Your task to perform on an android device: Search for "acer predator" on target.com, select the first entry, and add it to the cart. Image 0: 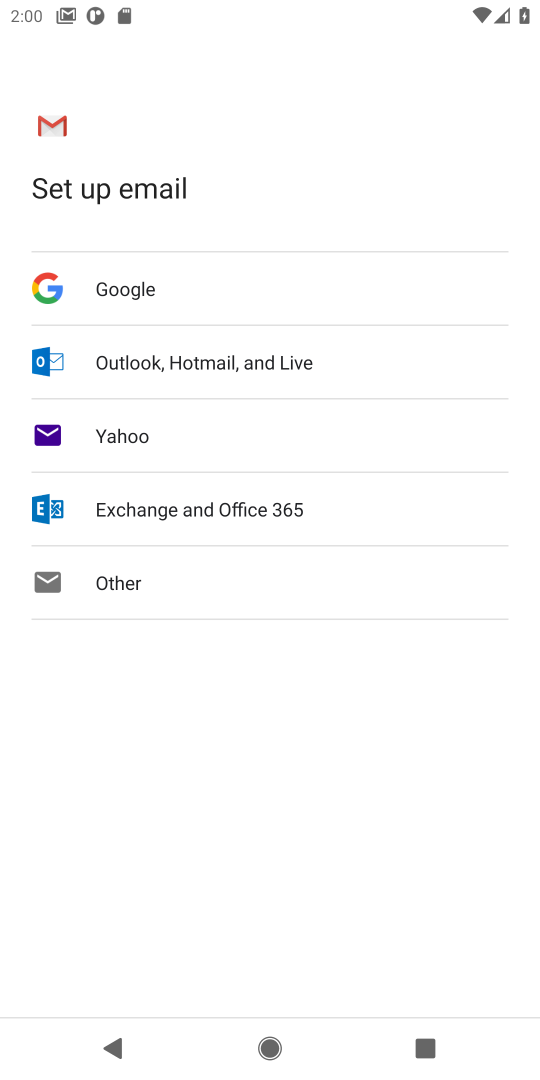
Step 0: press home button
Your task to perform on an android device: Search for "acer predator" on target.com, select the first entry, and add it to the cart. Image 1: 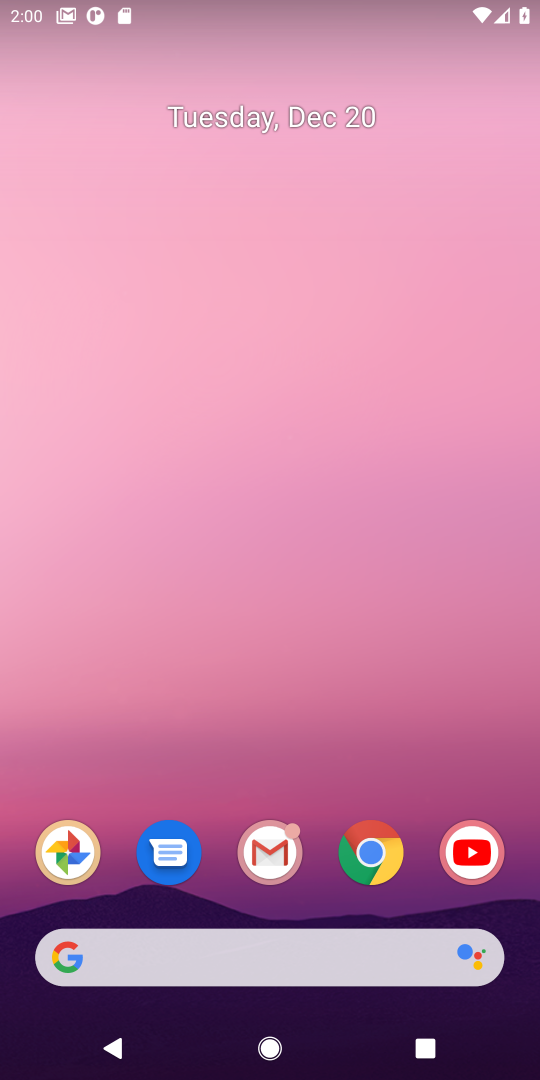
Step 1: click (377, 853)
Your task to perform on an android device: Search for "acer predator" on target.com, select the first entry, and add it to the cart. Image 2: 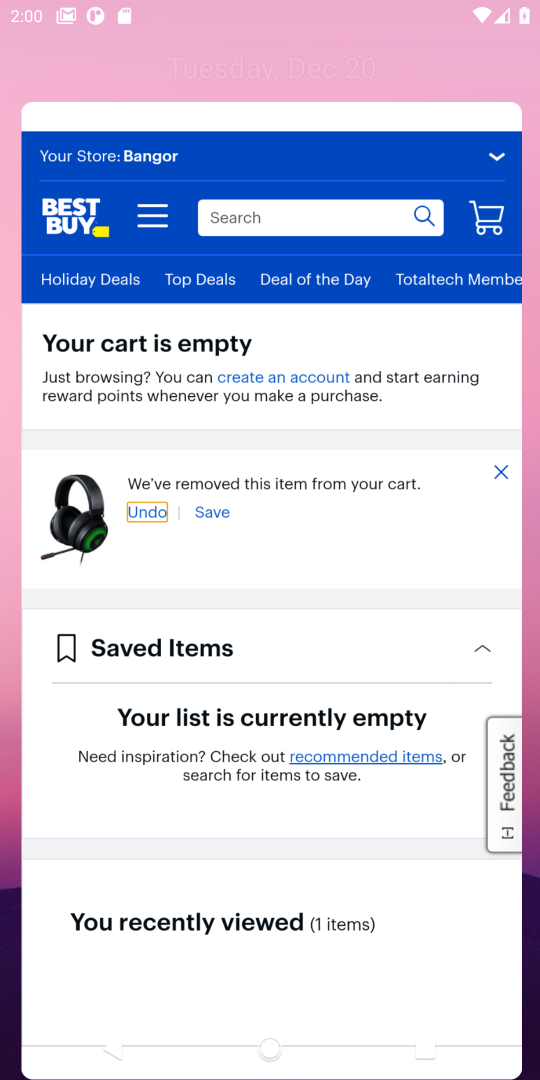
Step 2: click (377, 853)
Your task to perform on an android device: Search for "acer predator" on target.com, select the first entry, and add it to the cart. Image 3: 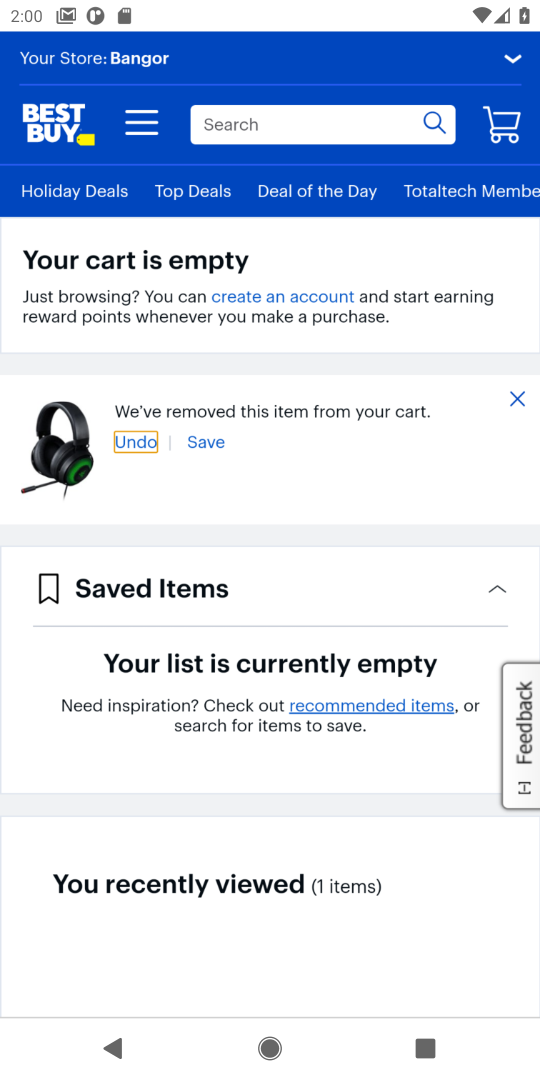
Step 3: click (377, 853)
Your task to perform on an android device: Search for "acer predator" on target.com, select the first entry, and add it to the cart. Image 4: 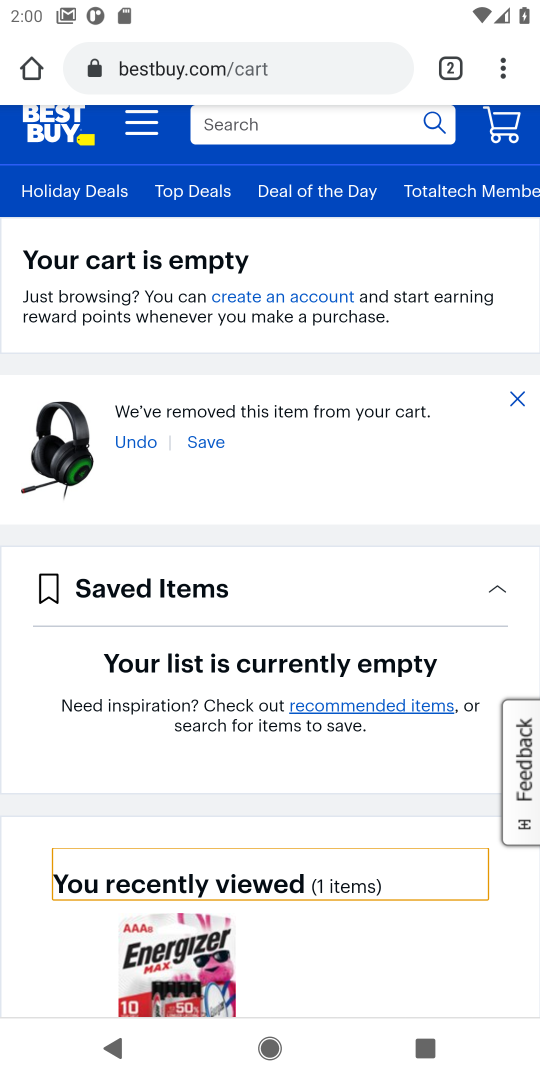
Step 4: click (207, 76)
Your task to perform on an android device: Search for "acer predator" on target.com, select the first entry, and add it to the cart. Image 5: 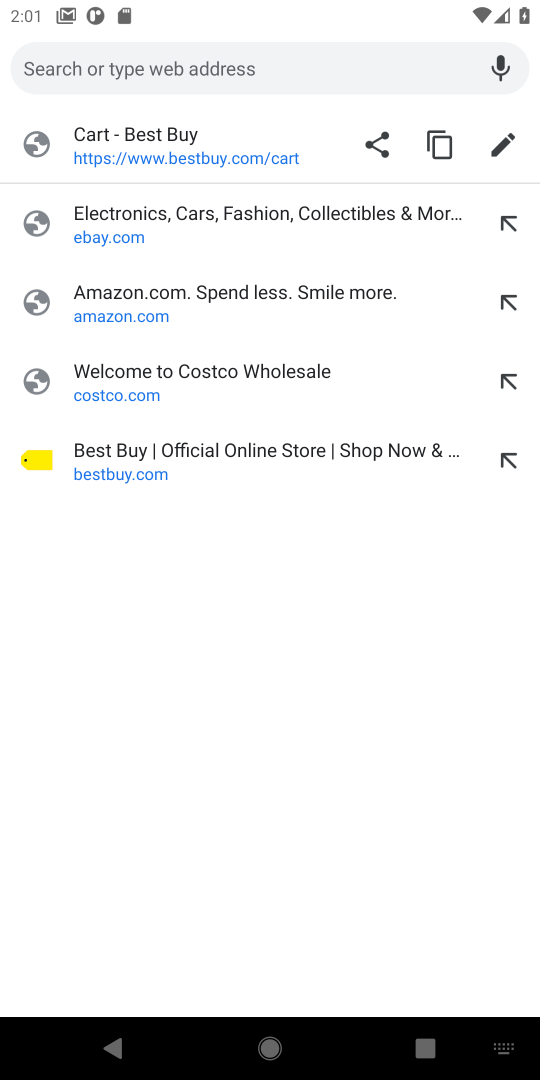
Step 5: type "target.com"
Your task to perform on an android device: Search for "acer predator" on target.com, select the first entry, and add it to the cart. Image 6: 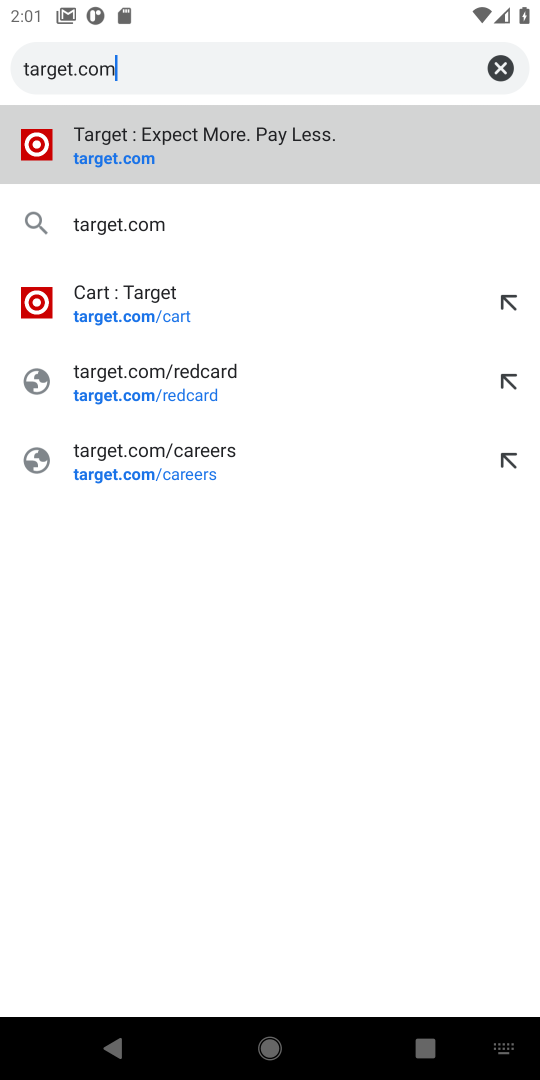
Step 6: click (115, 163)
Your task to perform on an android device: Search for "acer predator" on target.com, select the first entry, and add it to the cart. Image 7: 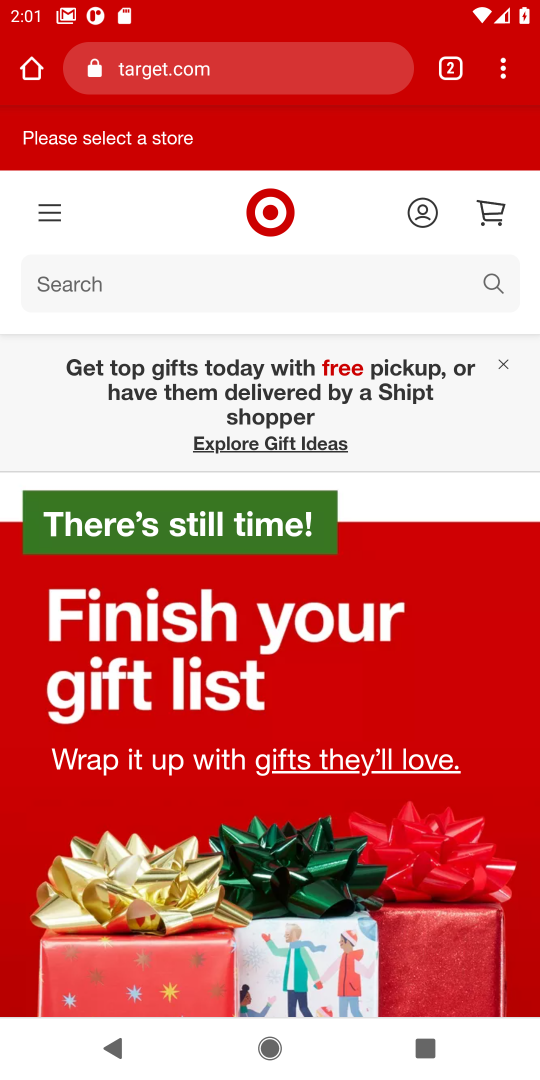
Step 7: click (62, 282)
Your task to perform on an android device: Search for "acer predator" on target.com, select the first entry, and add it to the cart. Image 8: 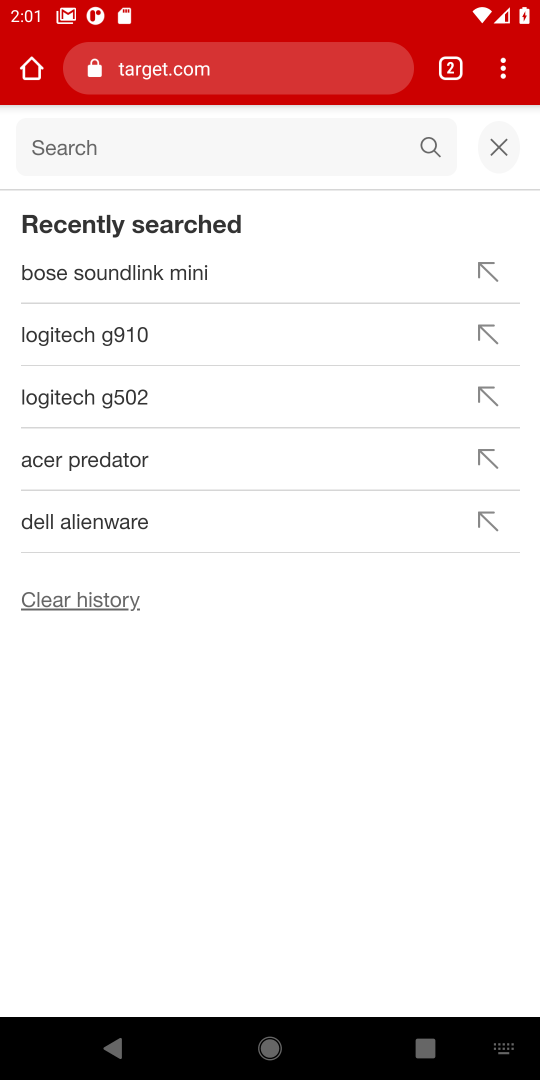
Step 8: type "acer predator"
Your task to perform on an android device: Search for "acer predator" on target.com, select the first entry, and add it to the cart. Image 9: 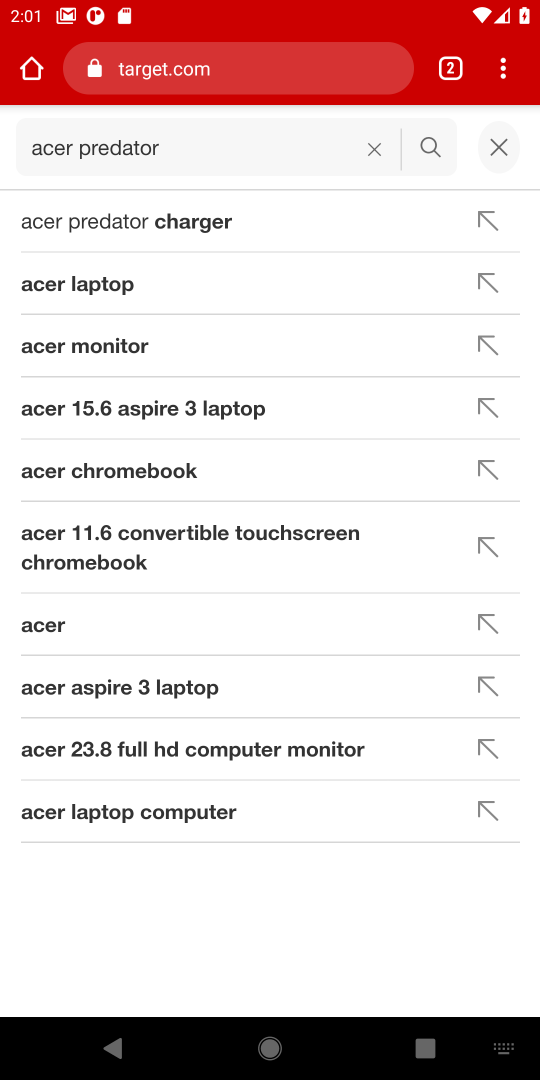
Step 9: click (424, 148)
Your task to perform on an android device: Search for "acer predator" on target.com, select the first entry, and add it to the cart. Image 10: 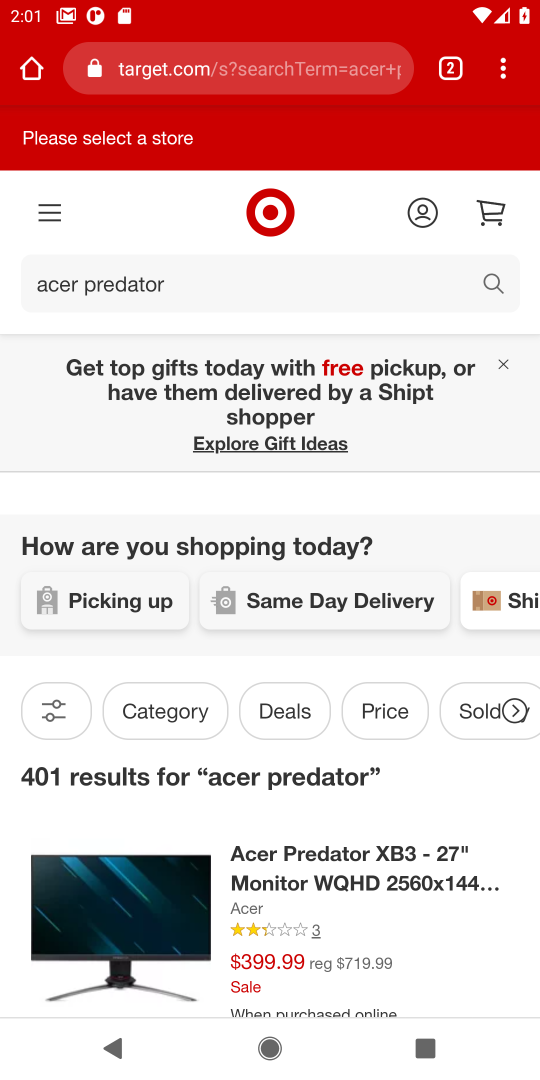
Step 10: drag from (227, 781) to (217, 423)
Your task to perform on an android device: Search for "acer predator" on target.com, select the first entry, and add it to the cart. Image 11: 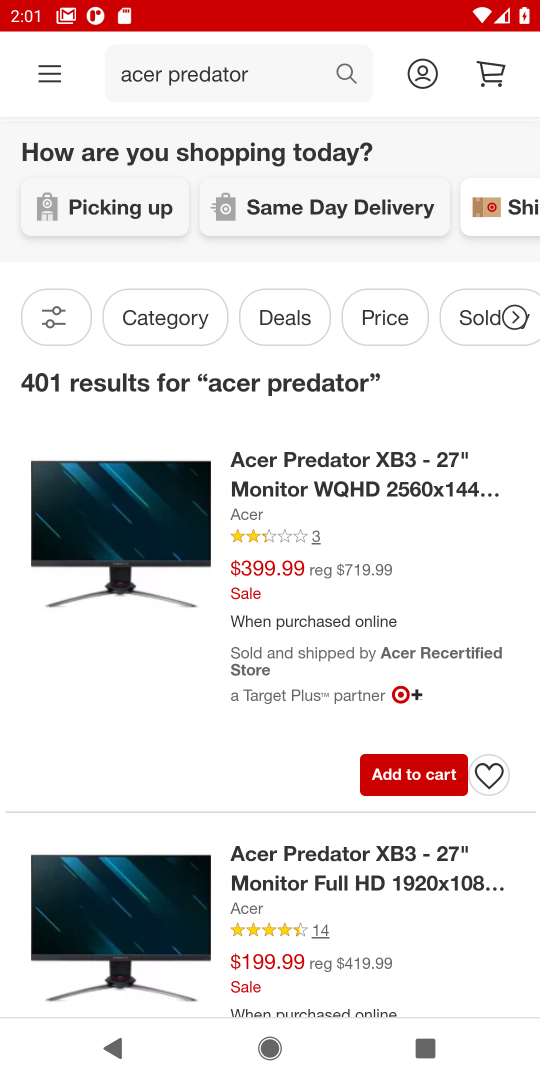
Step 11: click (401, 779)
Your task to perform on an android device: Search for "acer predator" on target.com, select the first entry, and add it to the cart. Image 12: 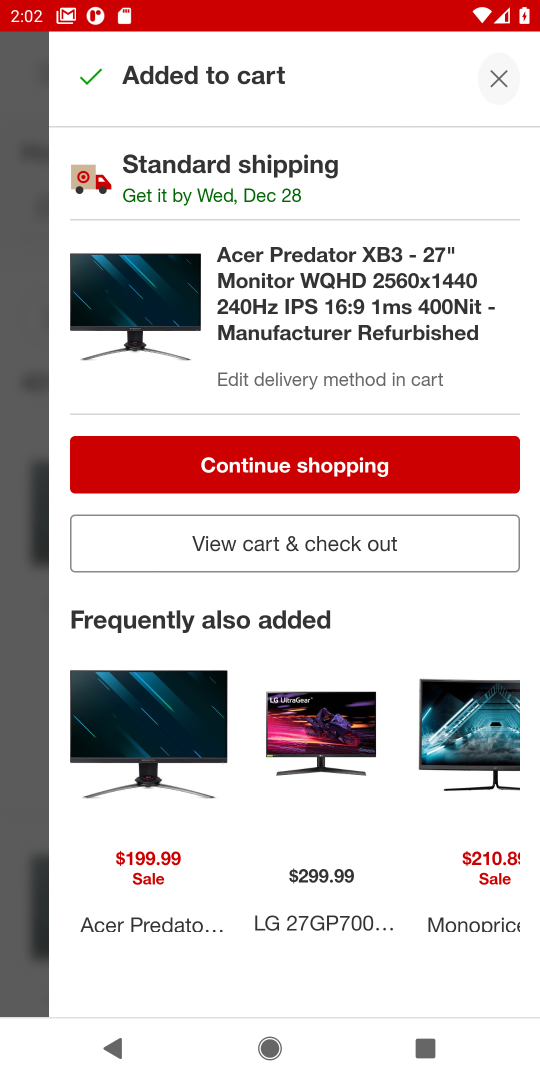
Step 12: task complete